Your task to perform on an android device: open a bookmark in the chrome app Image 0: 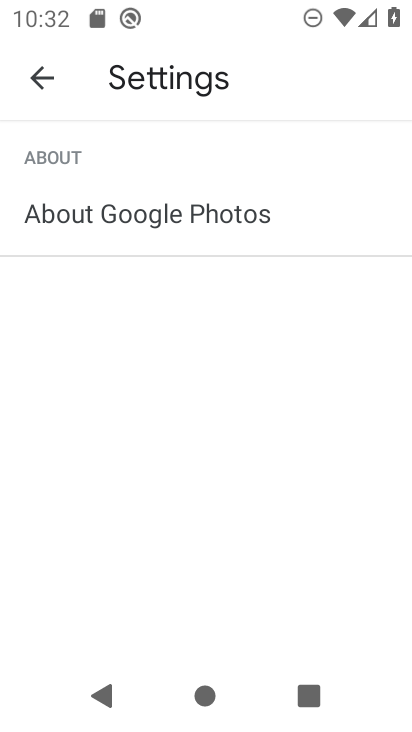
Step 0: press home button
Your task to perform on an android device: open a bookmark in the chrome app Image 1: 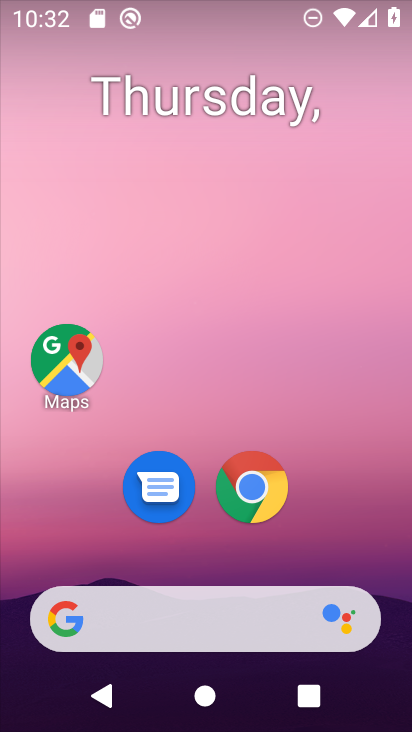
Step 1: click (232, 508)
Your task to perform on an android device: open a bookmark in the chrome app Image 2: 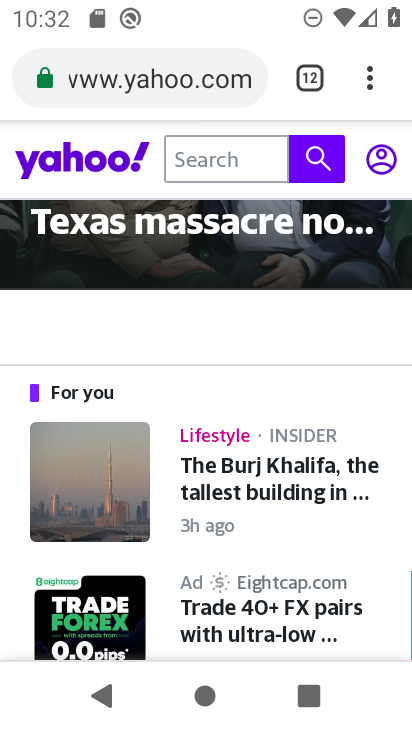
Step 2: click (379, 75)
Your task to perform on an android device: open a bookmark in the chrome app Image 3: 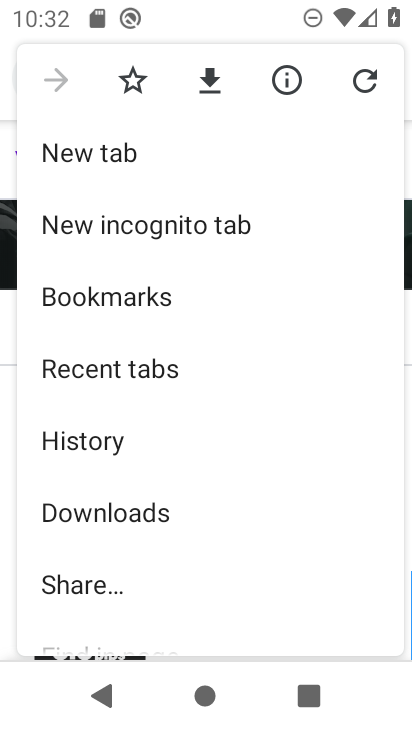
Step 3: click (143, 293)
Your task to perform on an android device: open a bookmark in the chrome app Image 4: 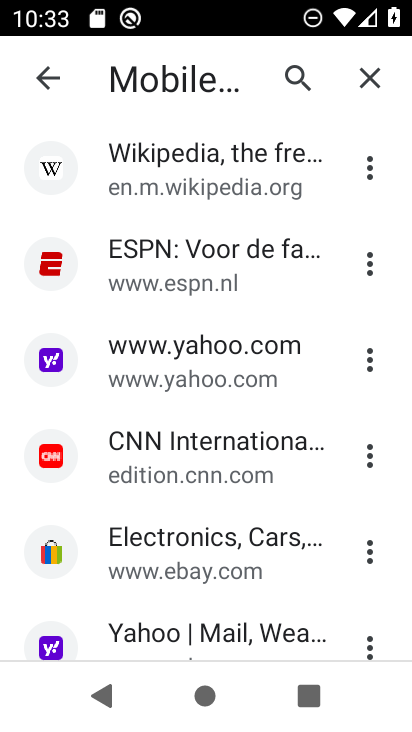
Step 4: task complete